Your task to perform on an android device: open wifi settings Image 0: 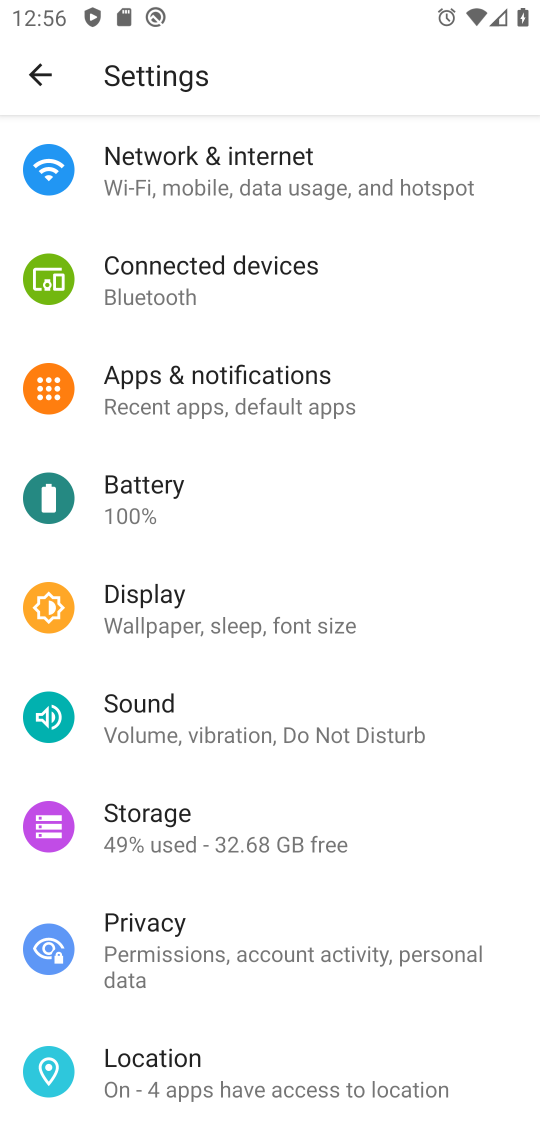
Step 0: click (298, 173)
Your task to perform on an android device: open wifi settings Image 1: 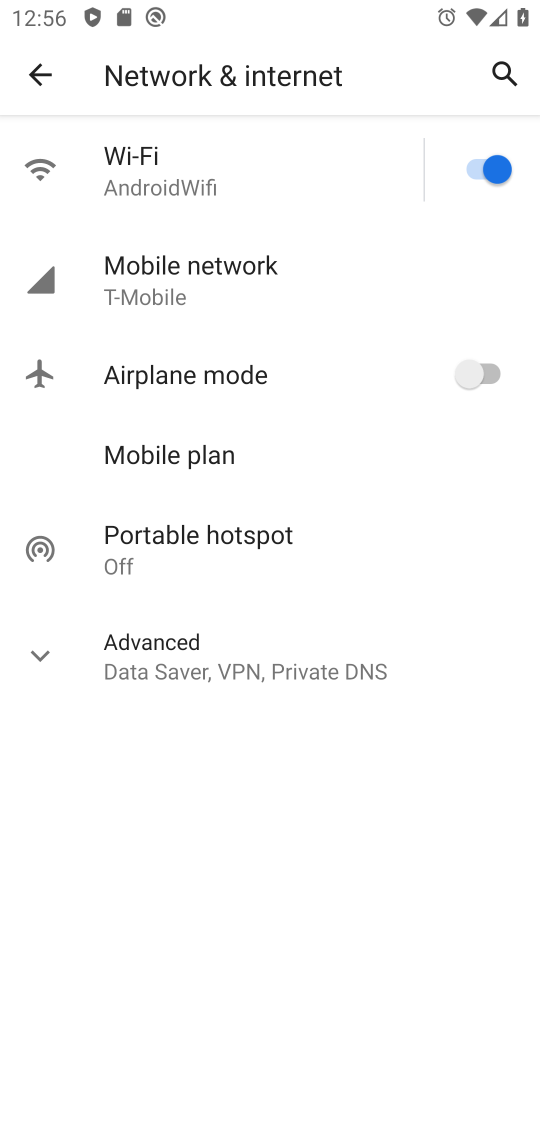
Step 1: click (264, 201)
Your task to perform on an android device: open wifi settings Image 2: 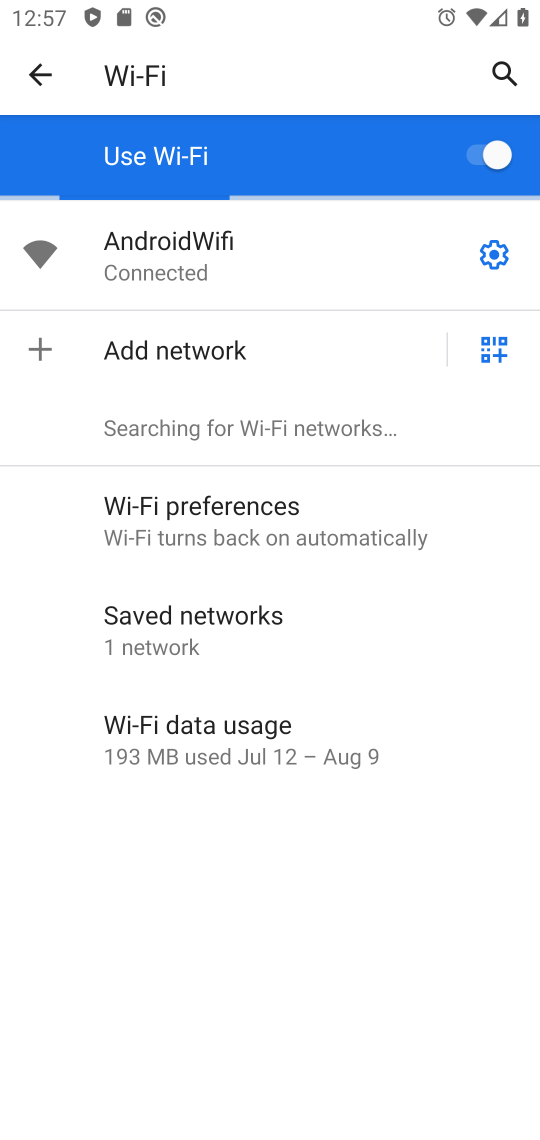
Step 2: click (500, 247)
Your task to perform on an android device: open wifi settings Image 3: 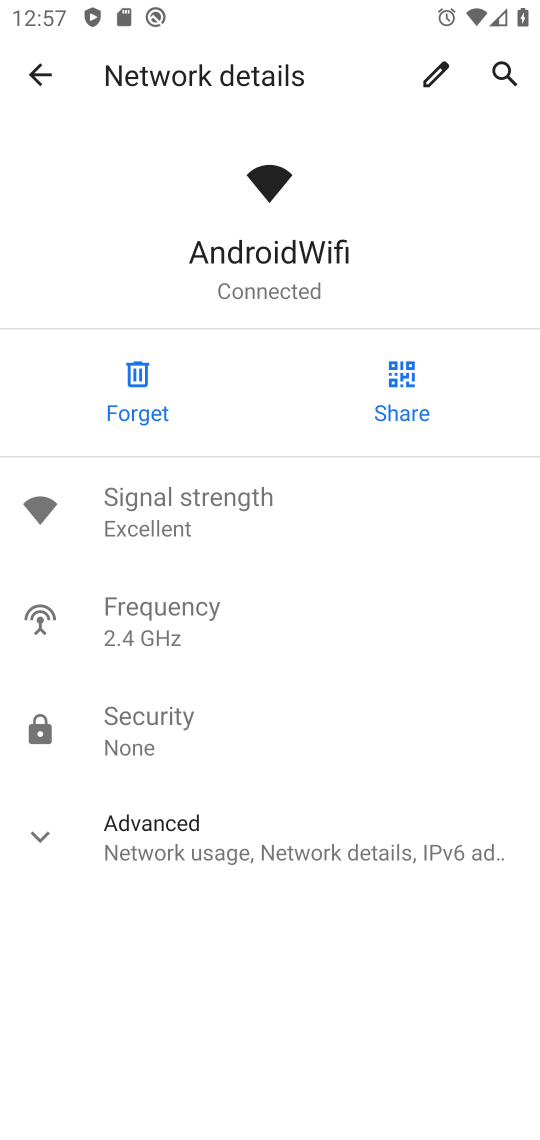
Step 3: task complete